Your task to perform on an android device: toggle show notifications on the lock screen Image 0: 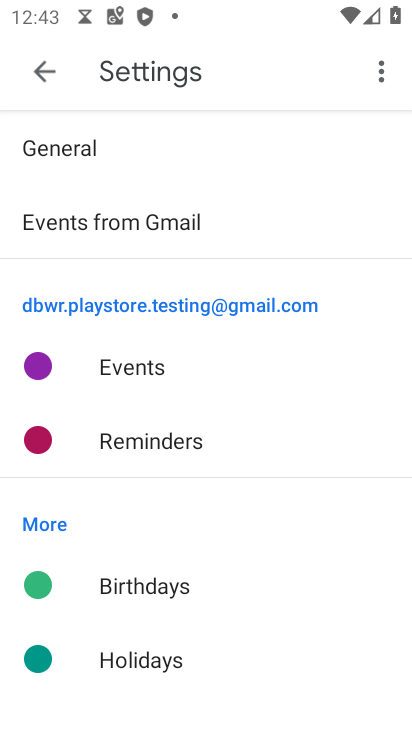
Step 0: press home button
Your task to perform on an android device: toggle show notifications on the lock screen Image 1: 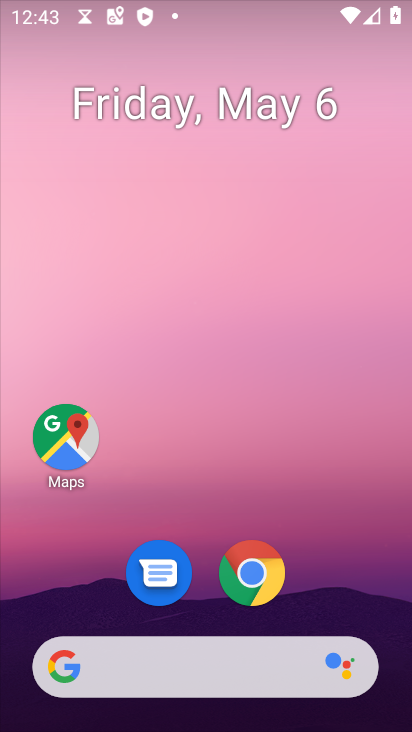
Step 1: drag from (344, 602) to (341, 268)
Your task to perform on an android device: toggle show notifications on the lock screen Image 2: 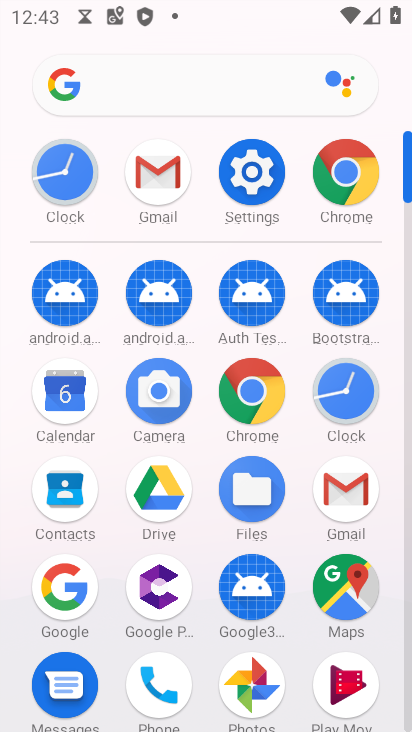
Step 2: click (244, 171)
Your task to perform on an android device: toggle show notifications on the lock screen Image 3: 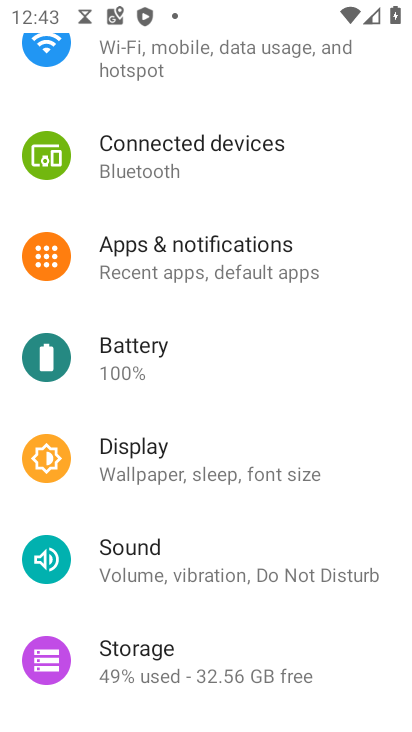
Step 3: click (246, 240)
Your task to perform on an android device: toggle show notifications on the lock screen Image 4: 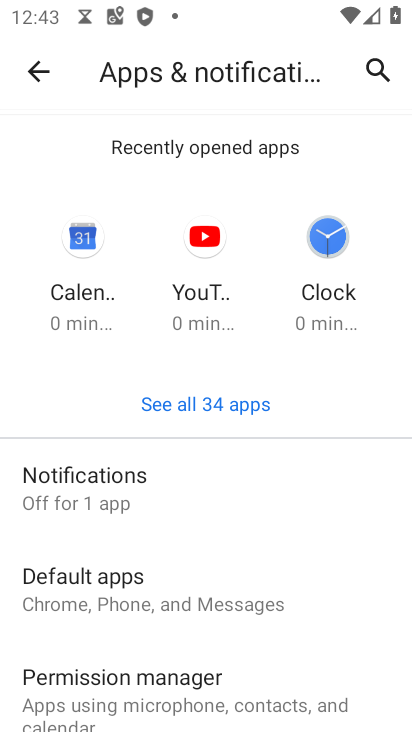
Step 4: drag from (236, 646) to (251, 497)
Your task to perform on an android device: toggle show notifications on the lock screen Image 5: 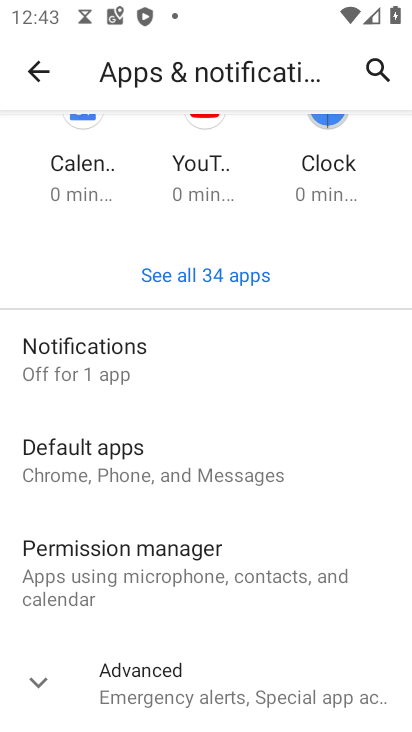
Step 5: click (146, 356)
Your task to perform on an android device: toggle show notifications on the lock screen Image 6: 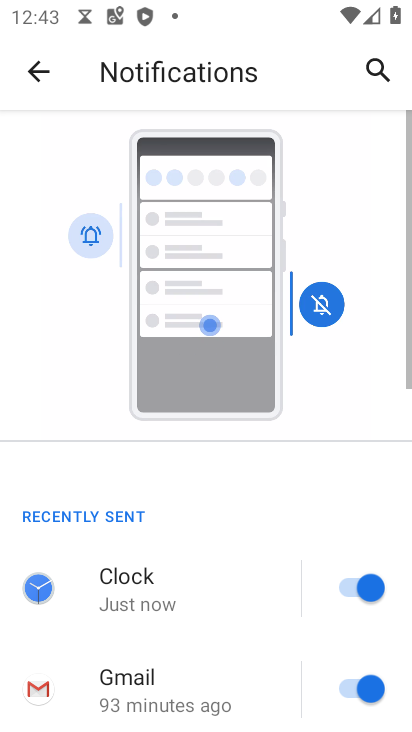
Step 6: drag from (179, 612) to (288, 161)
Your task to perform on an android device: toggle show notifications on the lock screen Image 7: 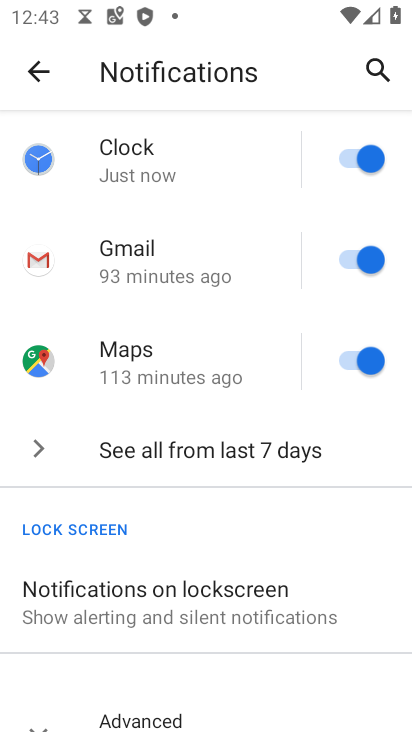
Step 7: click (162, 608)
Your task to perform on an android device: toggle show notifications on the lock screen Image 8: 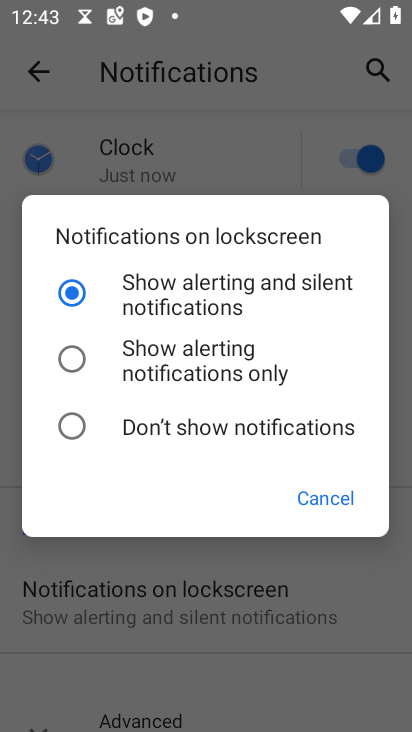
Step 8: click (149, 354)
Your task to perform on an android device: toggle show notifications on the lock screen Image 9: 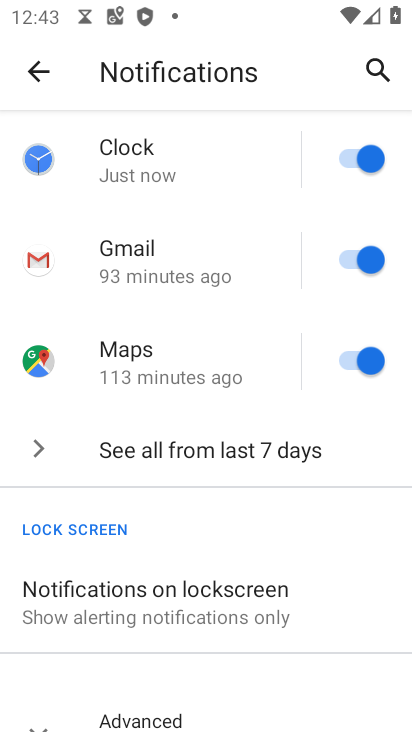
Step 9: task complete